Your task to perform on an android device: add a contact in the contacts app Image 0: 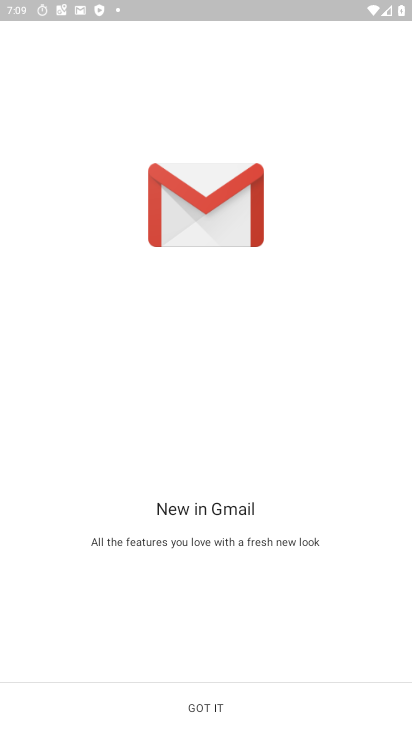
Step 0: press home button
Your task to perform on an android device: add a contact in the contacts app Image 1: 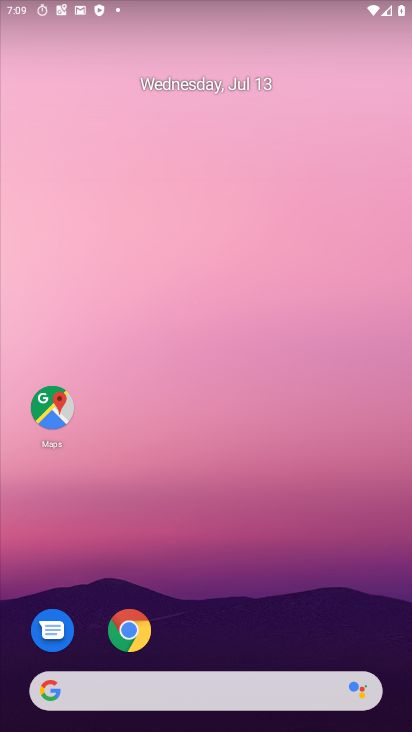
Step 1: drag from (315, 624) to (206, 13)
Your task to perform on an android device: add a contact in the contacts app Image 2: 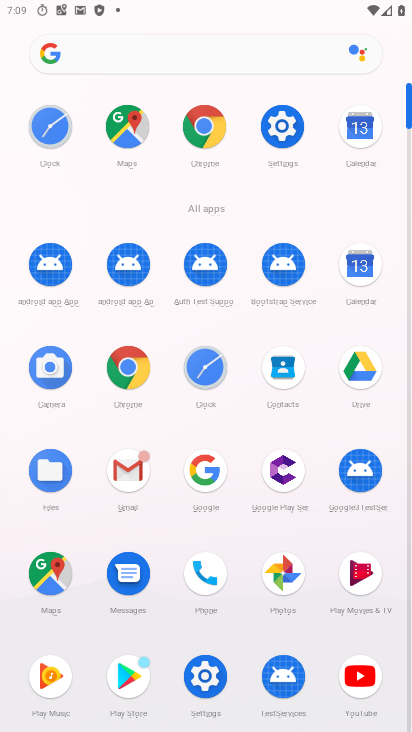
Step 2: click (275, 377)
Your task to perform on an android device: add a contact in the contacts app Image 3: 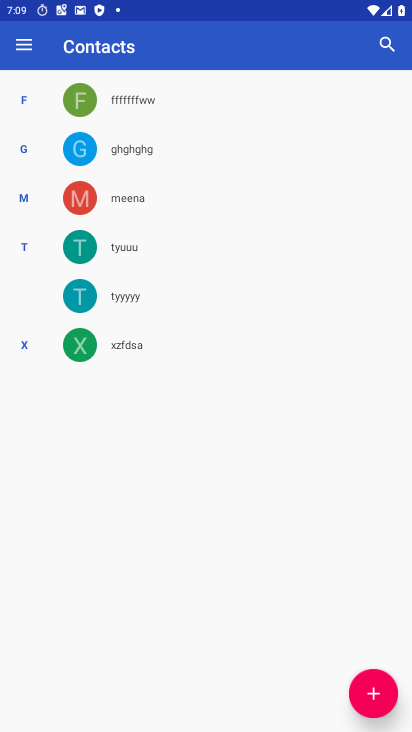
Step 3: click (365, 690)
Your task to perform on an android device: add a contact in the contacts app Image 4: 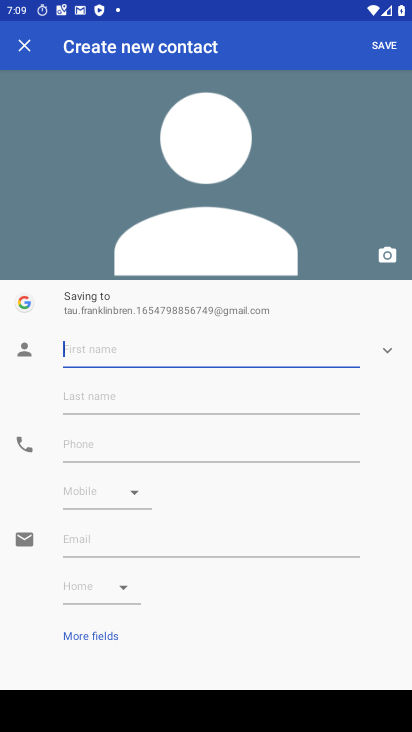
Step 4: type ""
Your task to perform on an android device: add a contact in the contacts app Image 5: 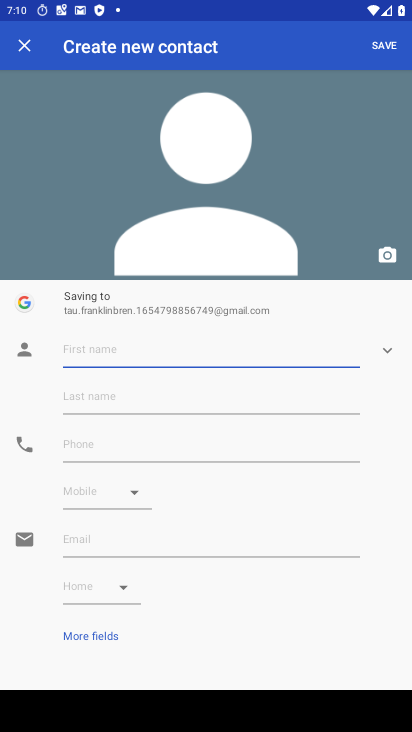
Step 5: type "allu"
Your task to perform on an android device: add a contact in the contacts app Image 6: 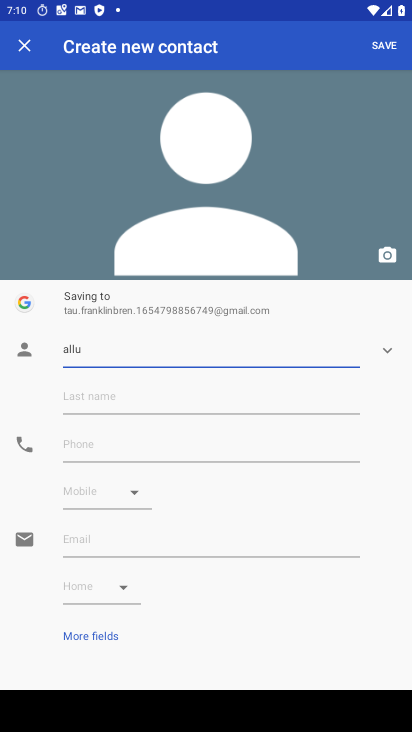
Step 6: click (389, 52)
Your task to perform on an android device: add a contact in the contacts app Image 7: 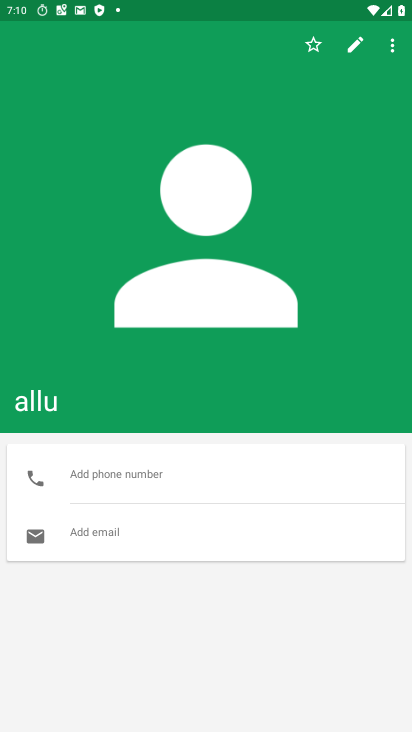
Step 7: task complete